Your task to perform on an android device: What's the weather today? Image 0: 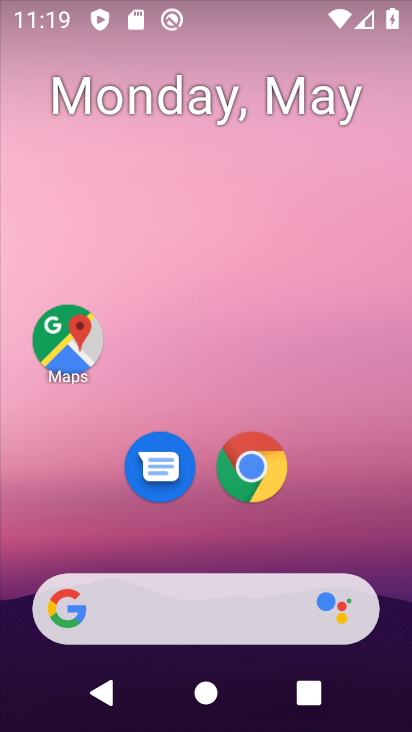
Step 0: drag from (370, 545) to (309, 42)
Your task to perform on an android device: What's the weather today? Image 1: 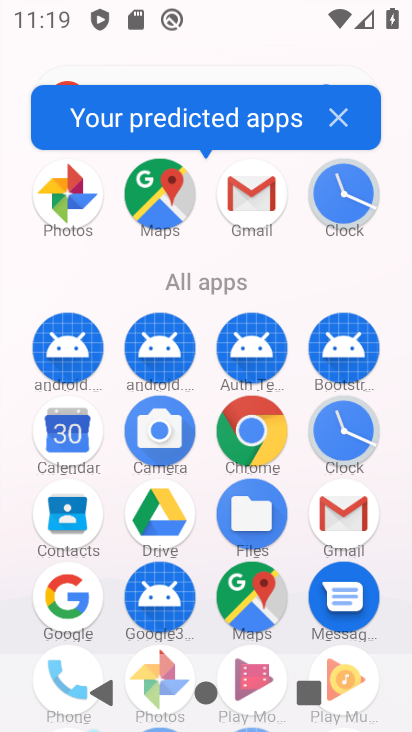
Step 1: click (254, 451)
Your task to perform on an android device: What's the weather today? Image 2: 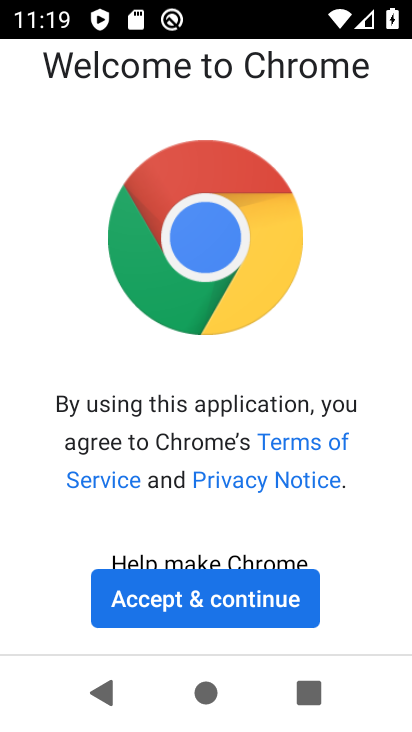
Step 2: click (255, 602)
Your task to perform on an android device: What's the weather today? Image 3: 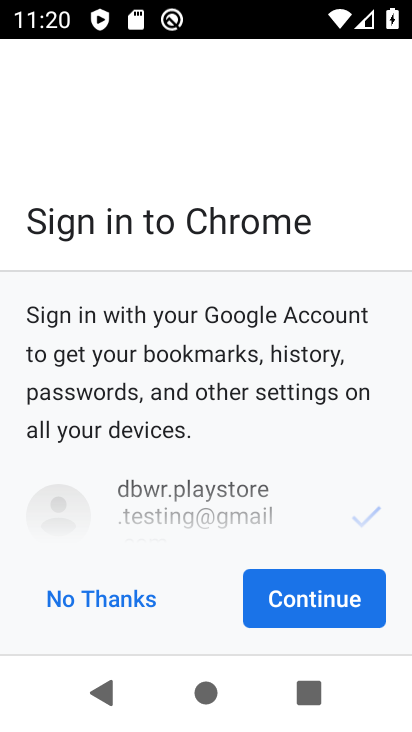
Step 3: click (279, 604)
Your task to perform on an android device: What's the weather today? Image 4: 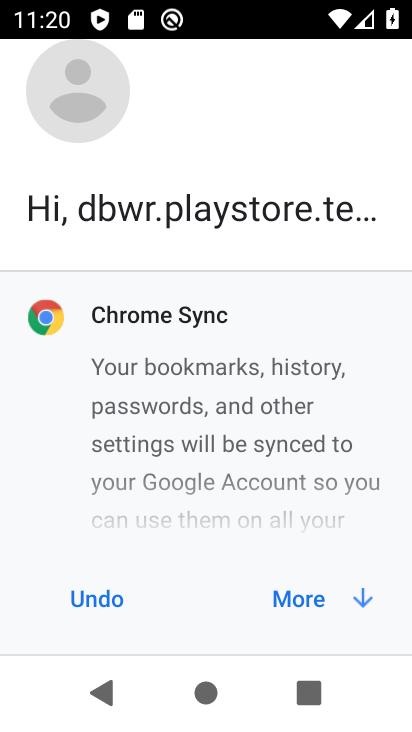
Step 4: click (279, 604)
Your task to perform on an android device: What's the weather today? Image 5: 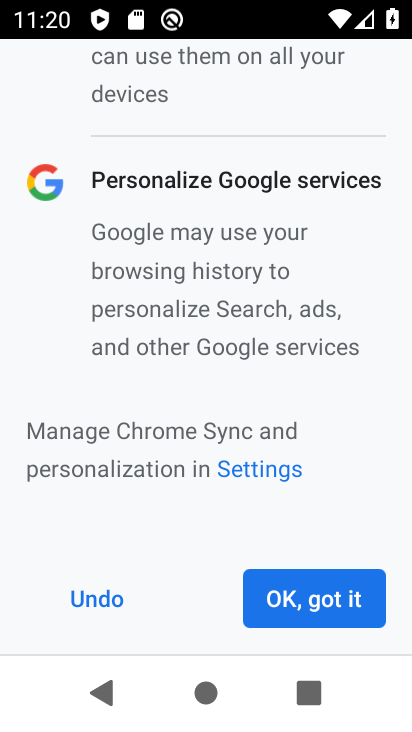
Step 5: click (295, 615)
Your task to perform on an android device: What's the weather today? Image 6: 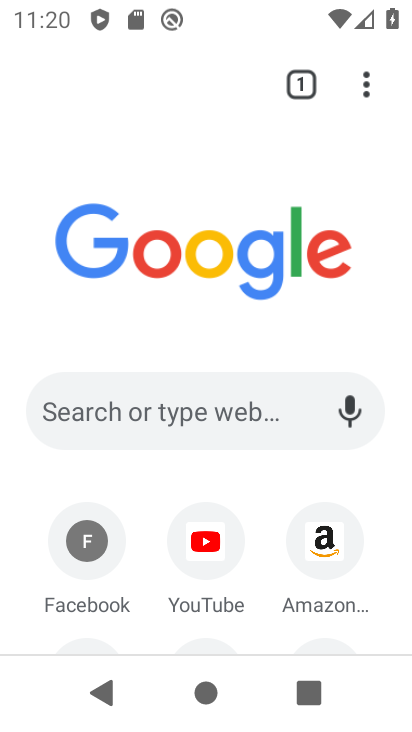
Step 6: click (254, 399)
Your task to perform on an android device: What's the weather today? Image 7: 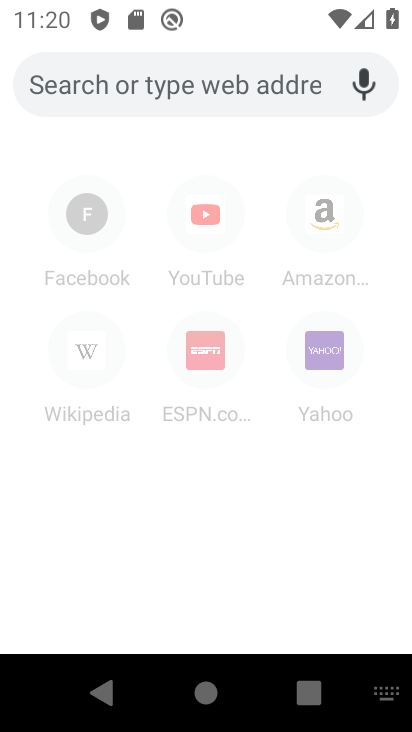
Step 7: click (215, 75)
Your task to perform on an android device: What's the weather today? Image 8: 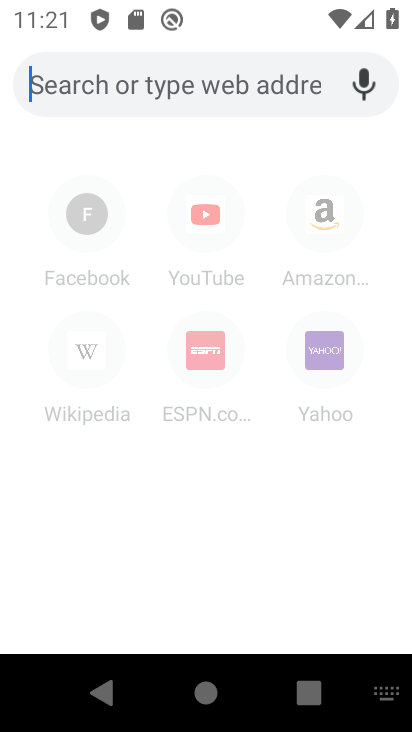
Step 8: type "What's the weather today?"
Your task to perform on an android device: What's the weather today? Image 9: 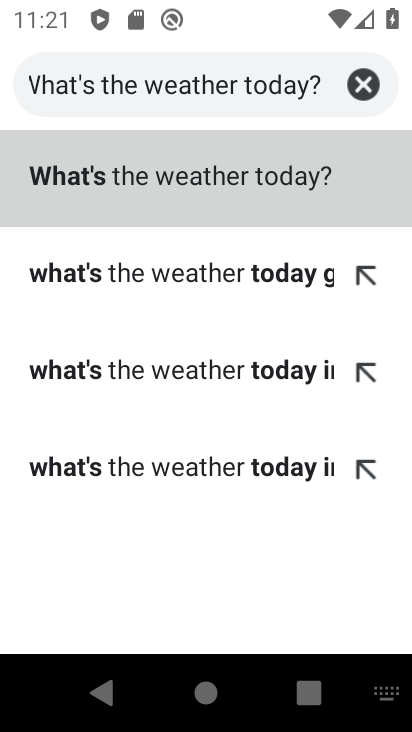
Step 9: click (181, 188)
Your task to perform on an android device: What's the weather today? Image 10: 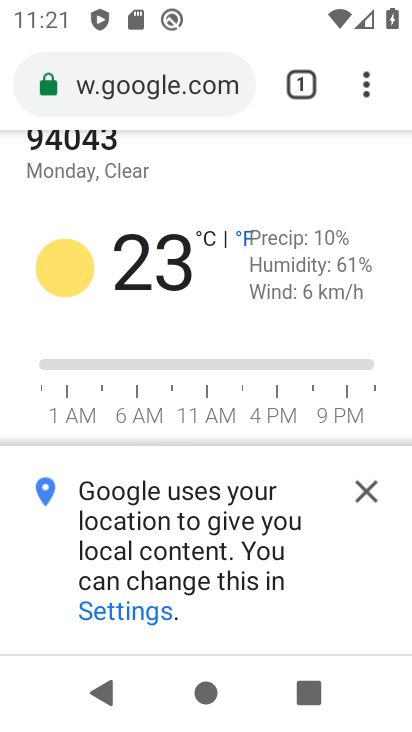
Step 10: click (370, 501)
Your task to perform on an android device: What's the weather today? Image 11: 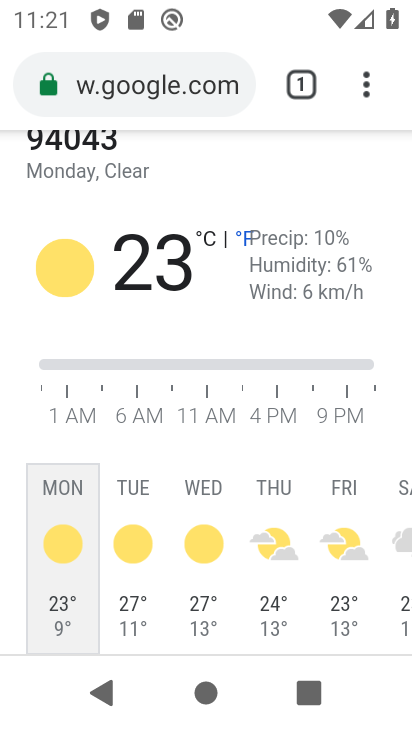
Step 11: task complete